Your task to perform on an android device: change the clock display to show seconds Image 0: 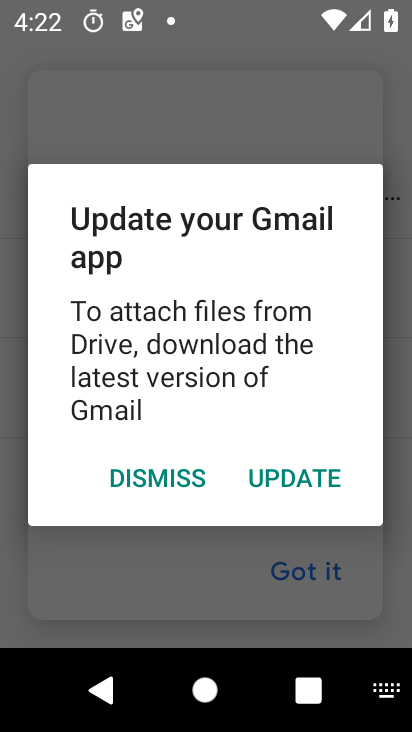
Step 0: press home button
Your task to perform on an android device: change the clock display to show seconds Image 1: 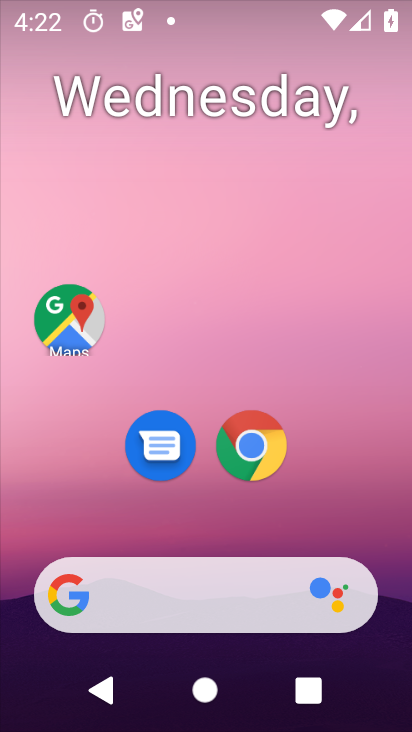
Step 1: drag from (225, 499) to (274, 57)
Your task to perform on an android device: change the clock display to show seconds Image 2: 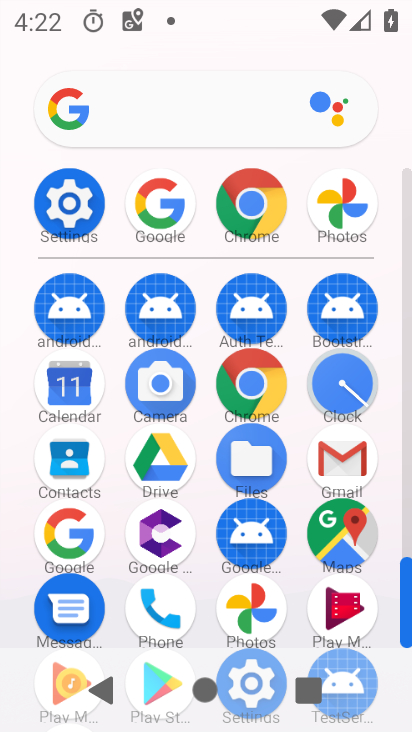
Step 2: click (336, 399)
Your task to perform on an android device: change the clock display to show seconds Image 3: 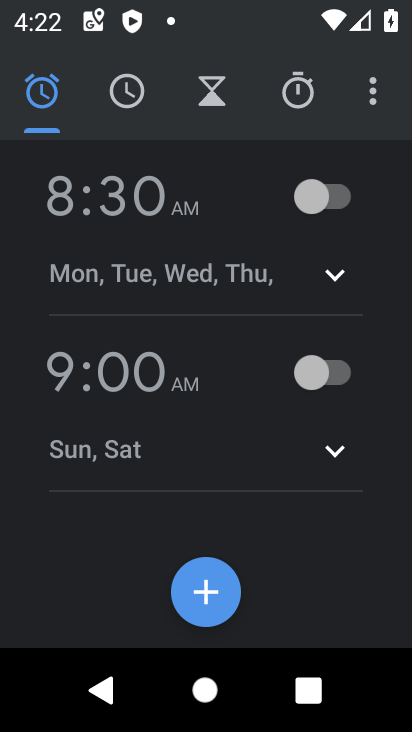
Step 3: click (365, 91)
Your task to perform on an android device: change the clock display to show seconds Image 4: 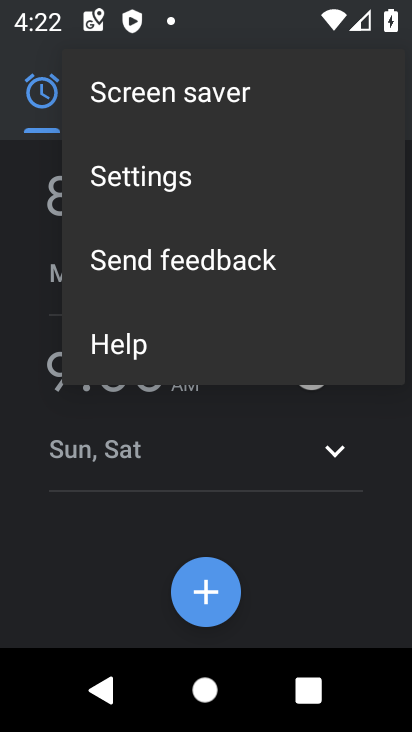
Step 4: click (194, 195)
Your task to perform on an android device: change the clock display to show seconds Image 5: 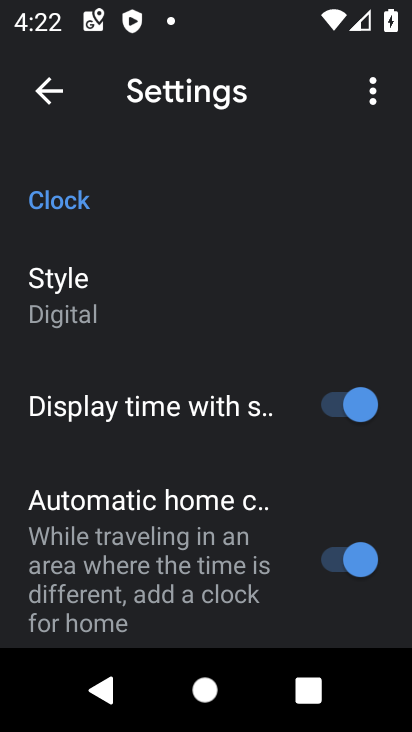
Step 5: click (348, 403)
Your task to perform on an android device: change the clock display to show seconds Image 6: 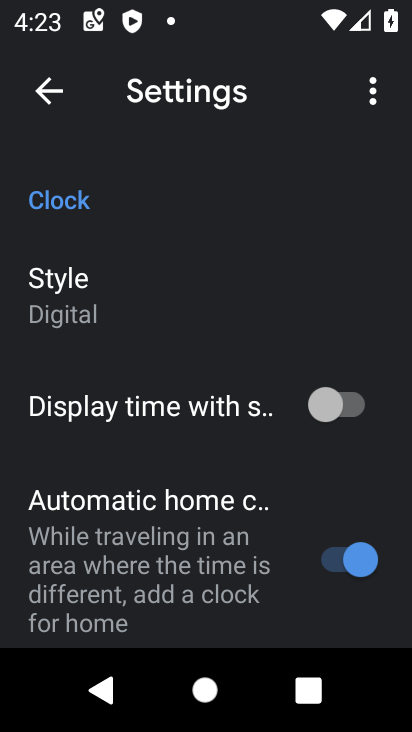
Step 6: task complete